Your task to perform on an android device: toggle pop-ups in chrome Image 0: 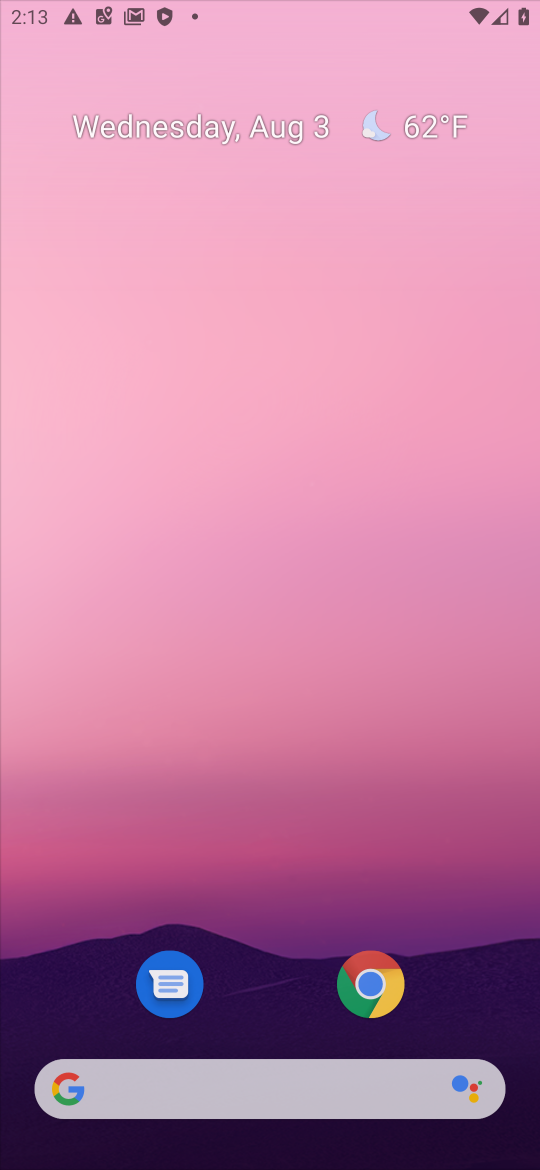
Step 0: press home button
Your task to perform on an android device: toggle pop-ups in chrome Image 1: 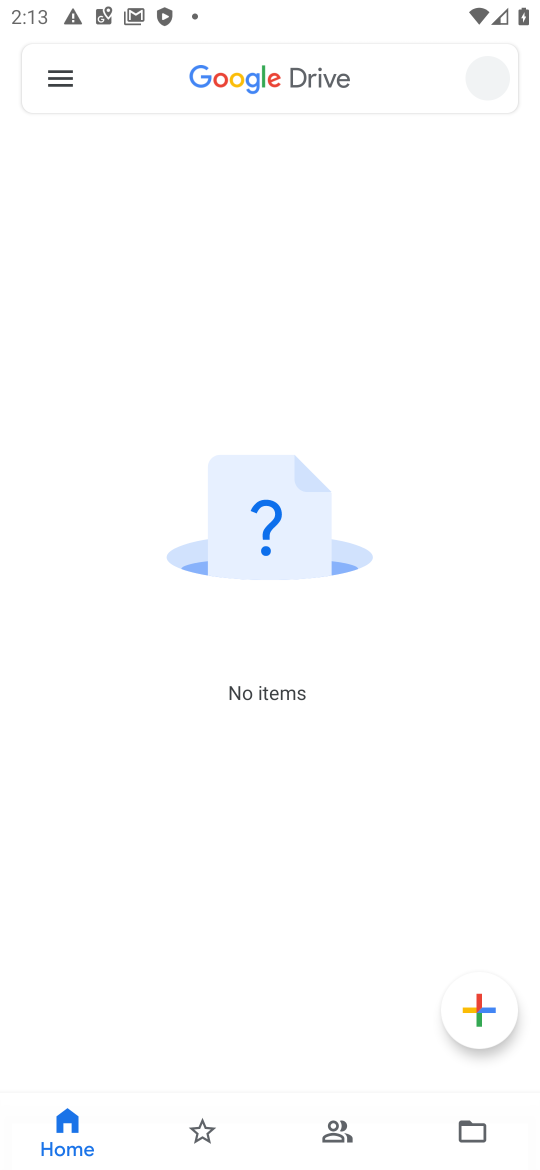
Step 1: click (311, 173)
Your task to perform on an android device: toggle pop-ups in chrome Image 2: 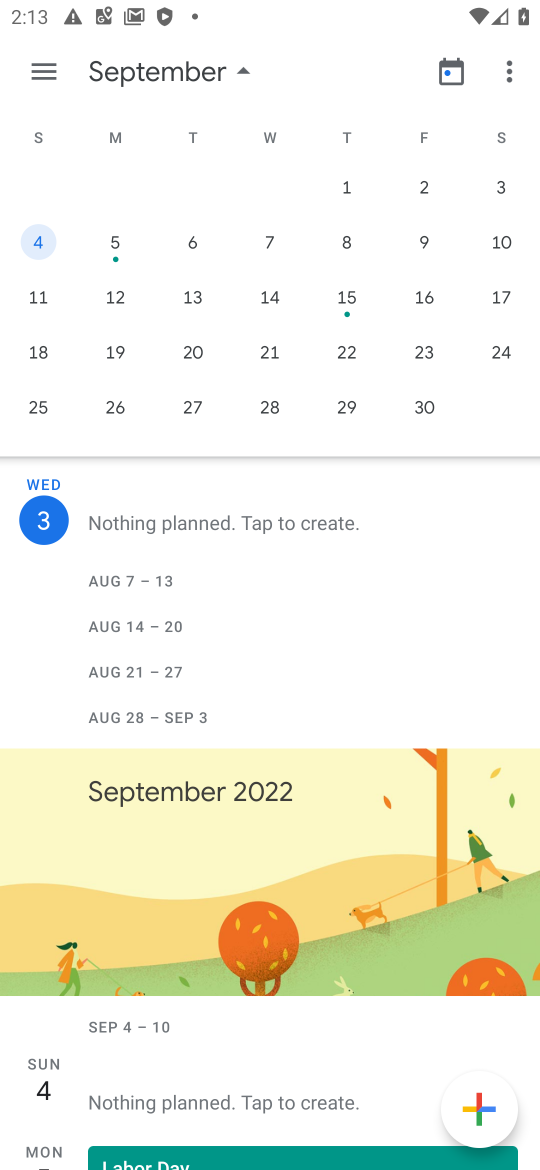
Step 2: press home button
Your task to perform on an android device: toggle pop-ups in chrome Image 3: 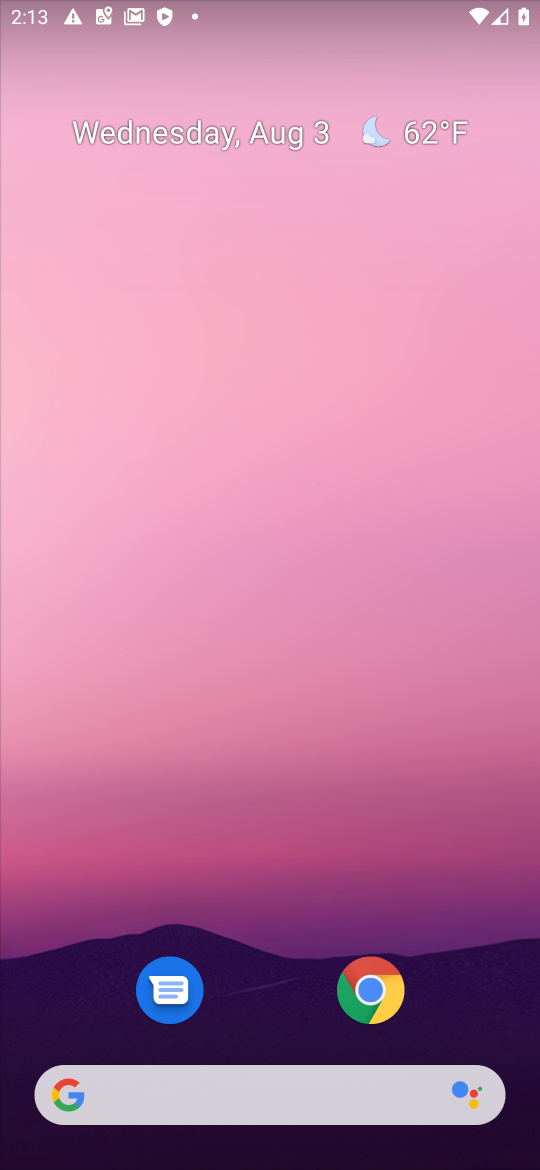
Step 3: click (357, 996)
Your task to perform on an android device: toggle pop-ups in chrome Image 4: 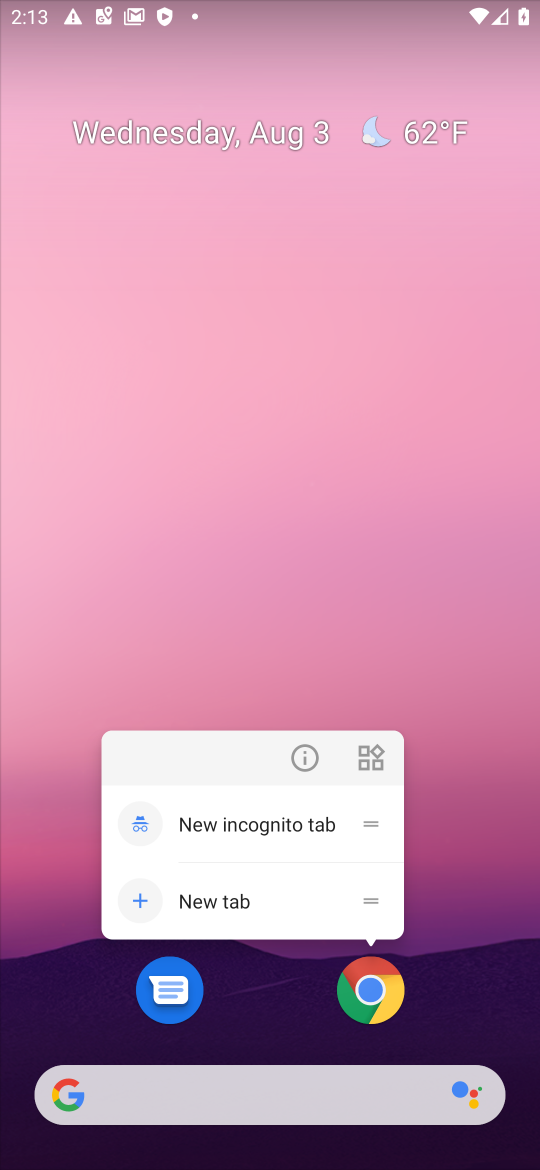
Step 4: click (367, 995)
Your task to perform on an android device: toggle pop-ups in chrome Image 5: 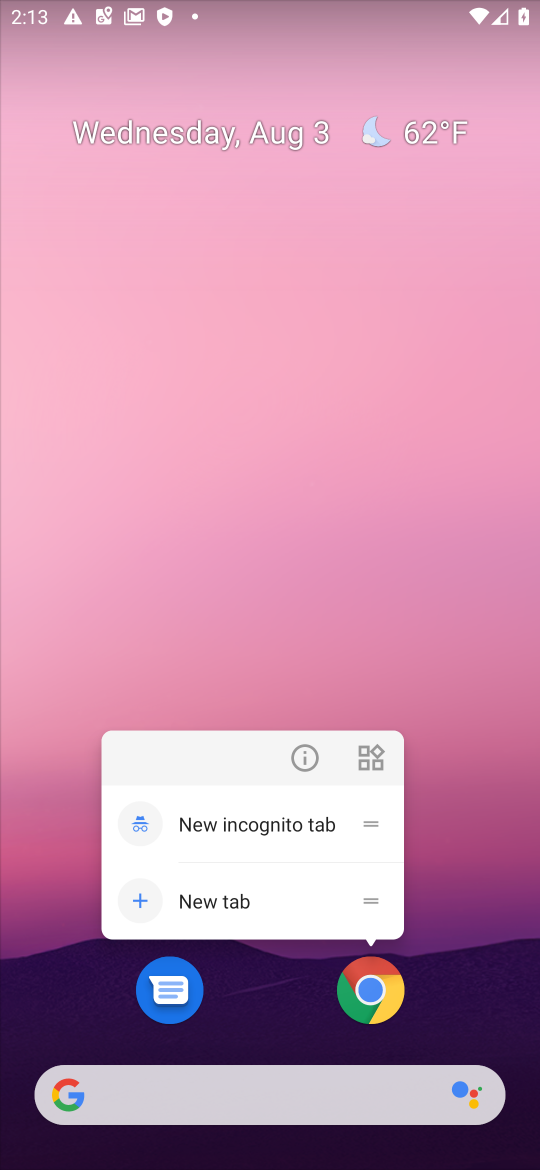
Step 5: click (367, 995)
Your task to perform on an android device: toggle pop-ups in chrome Image 6: 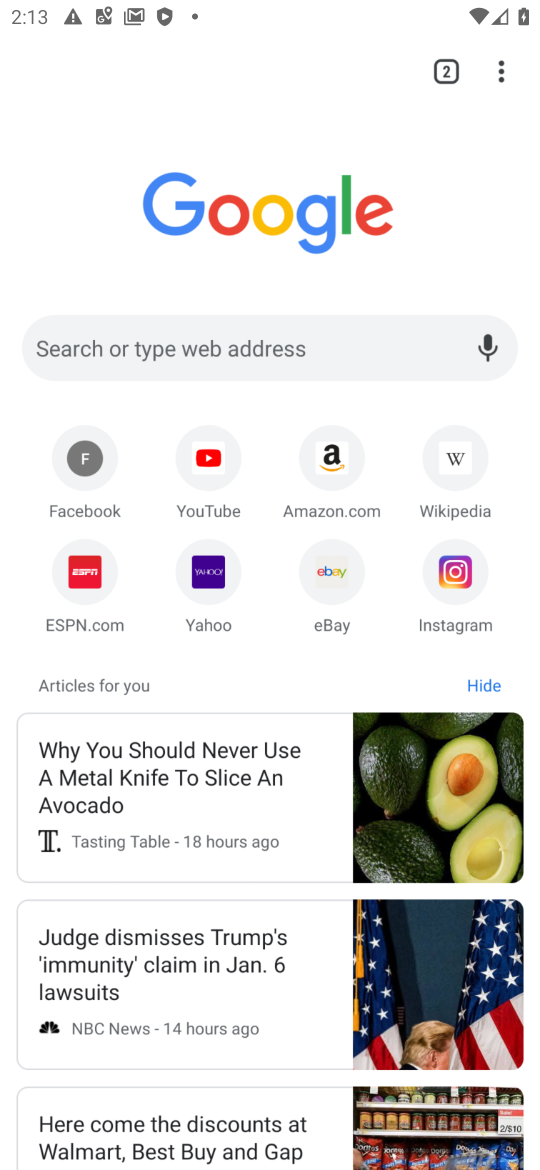
Step 6: click (496, 67)
Your task to perform on an android device: toggle pop-ups in chrome Image 7: 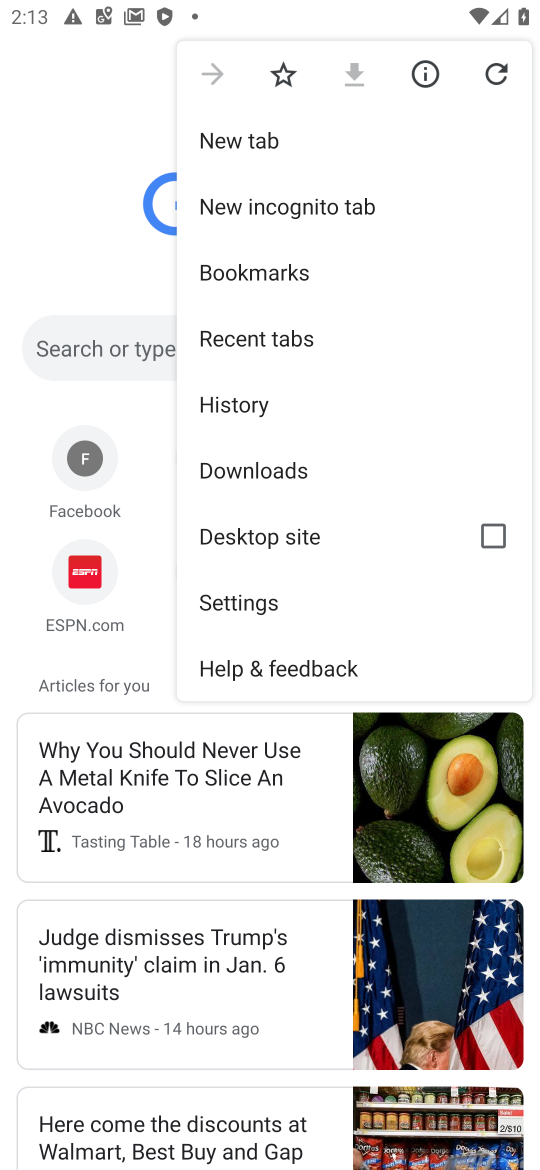
Step 7: click (231, 601)
Your task to perform on an android device: toggle pop-ups in chrome Image 8: 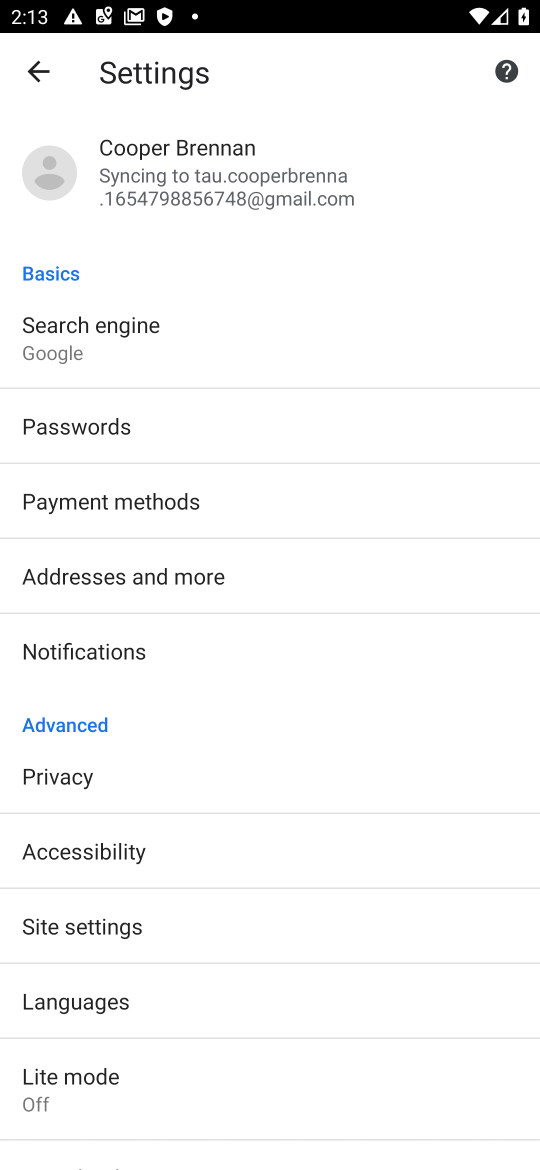
Step 8: click (59, 922)
Your task to perform on an android device: toggle pop-ups in chrome Image 9: 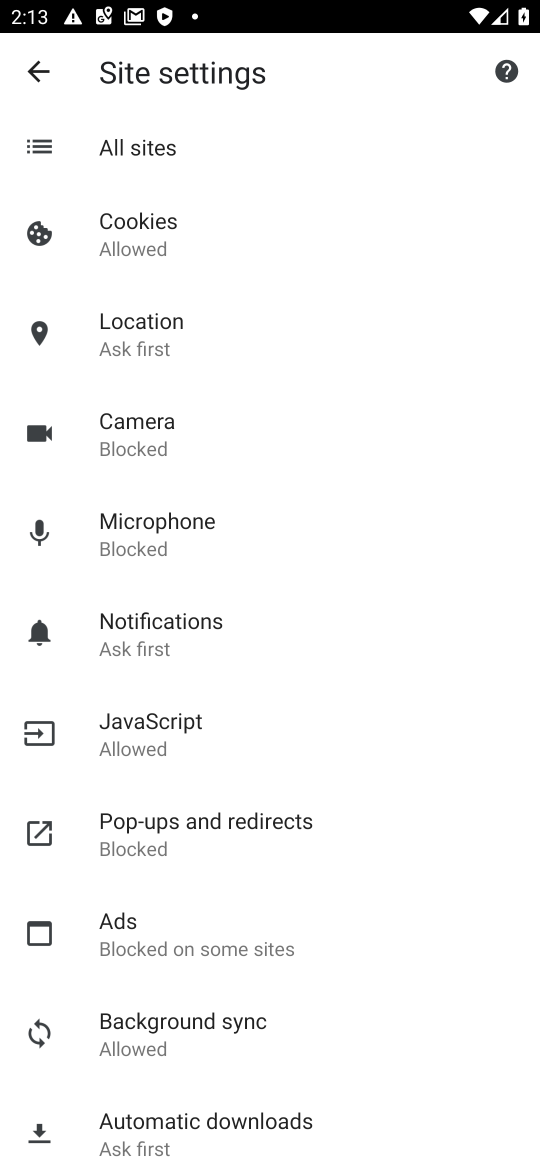
Step 9: click (177, 842)
Your task to perform on an android device: toggle pop-ups in chrome Image 10: 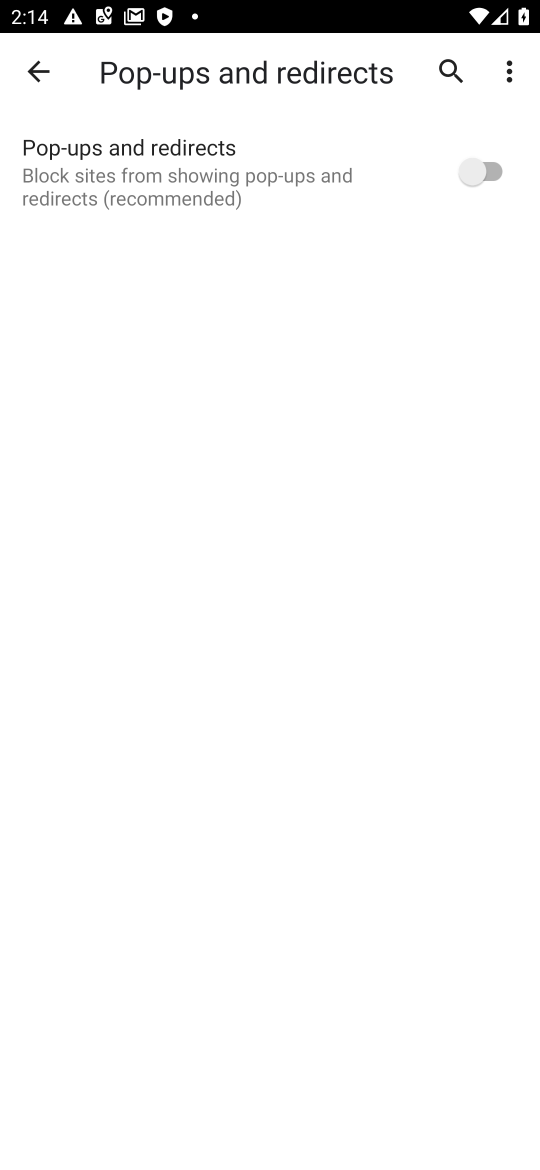
Step 10: click (492, 163)
Your task to perform on an android device: toggle pop-ups in chrome Image 11: 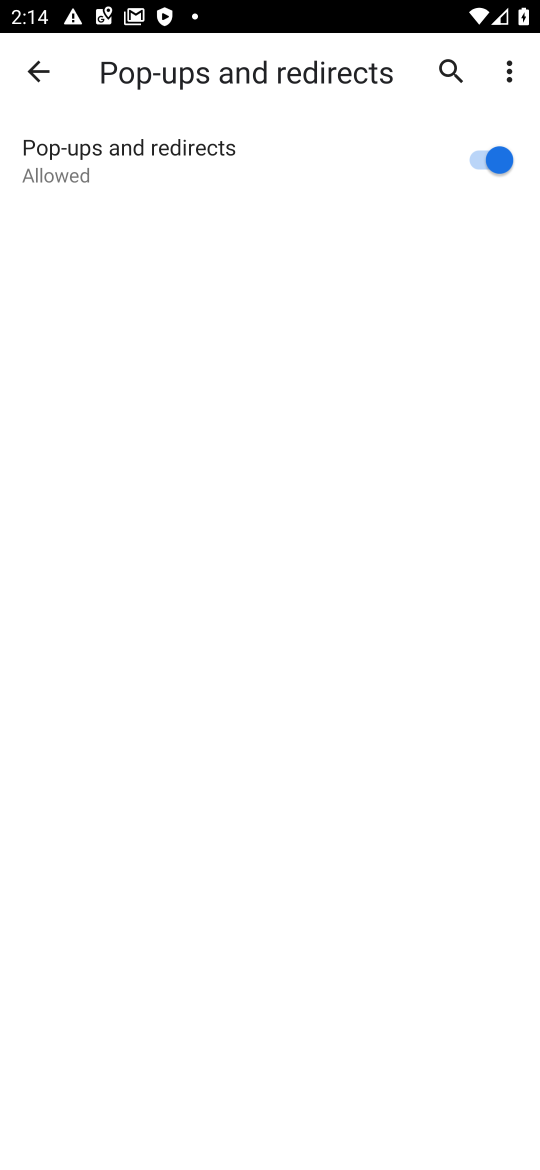
Step 11: task complete